Your task to perform on an android device: change text size in settings app Image 0: 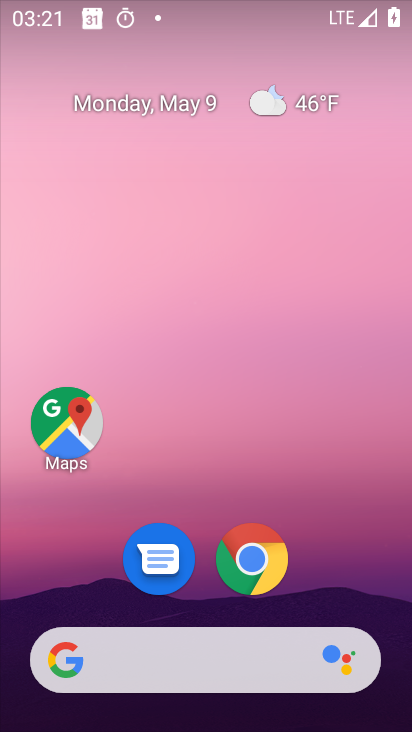
Step 0: drag from (348, 514) to (355, 162)
Your task to perform on an android device: change text size in settings app Image 1: 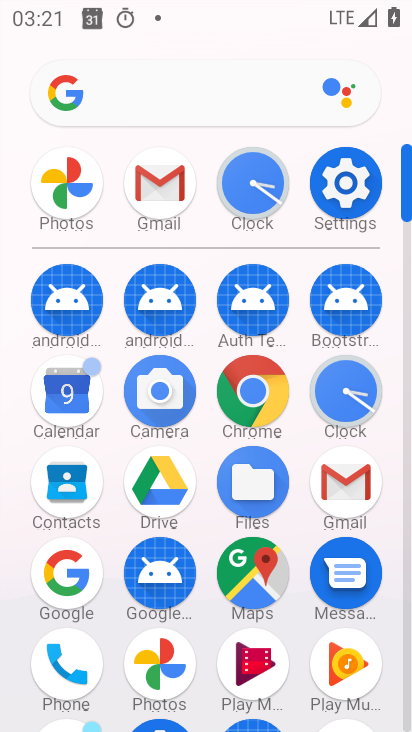
Step 1: click (365, 182)
Your task to perform on an android device: change text size in settings app Image 2: 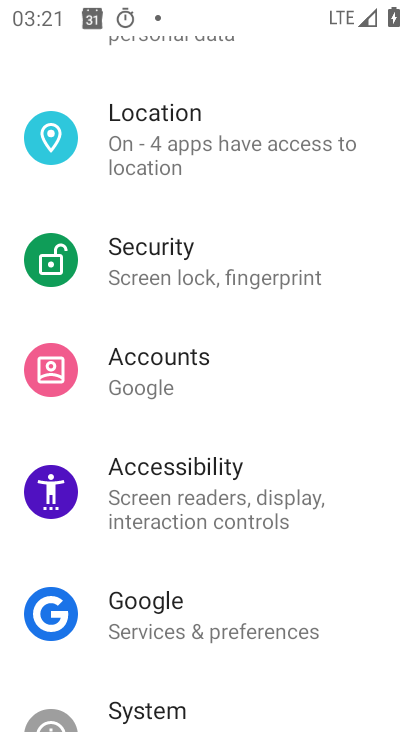
Step 2: click (208, 501)
Your task to perform on an android device: change text size in settings app Image 3: 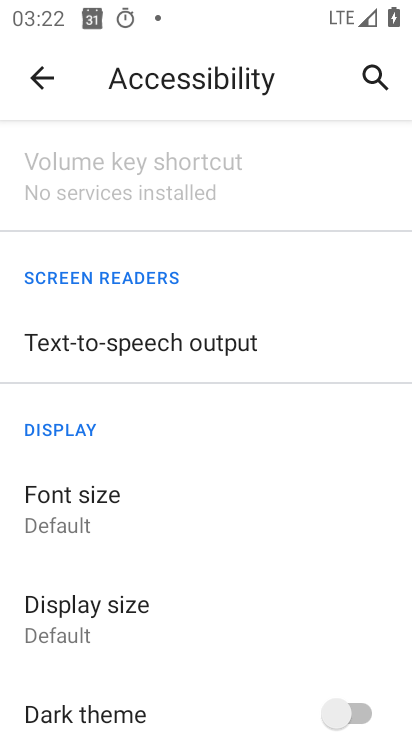
Step 3: click (93, 515)
Your task to perform on an android device: change text size in settings app Image 4: 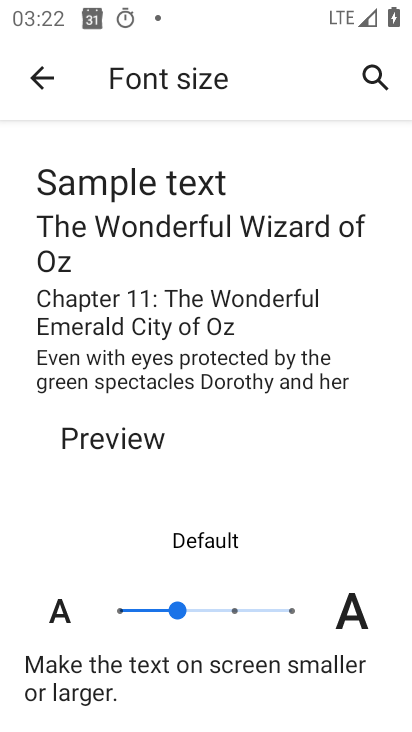
Step 4: click (123, 609)
Your task to perform on an android device: change text size in settings app Image 5: 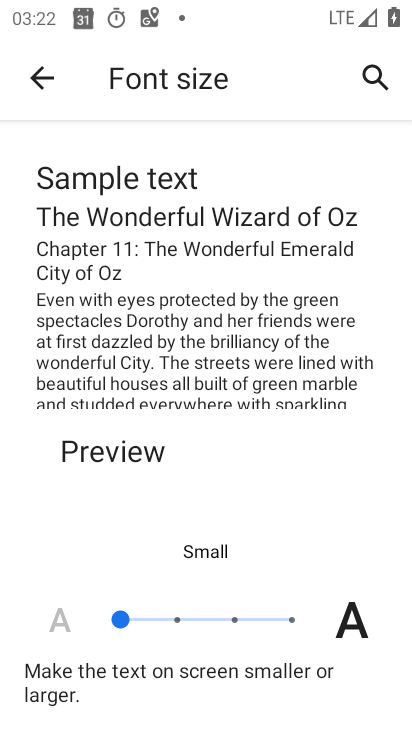
Step 5: task complete